Your task to perform on an android device: Open Google Maps and go to "Timeline" Image 0: 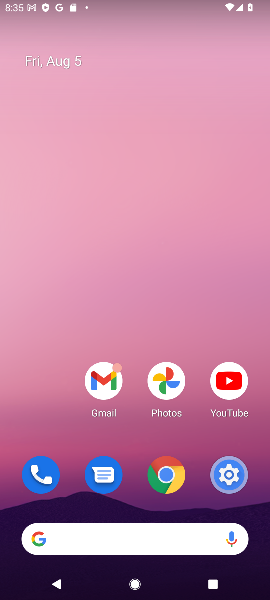
Step 0: drag from (95, 579) to (171, 173)
Your task to perform on an android device: Open Google Maps and go to "Timeline" Image 1: 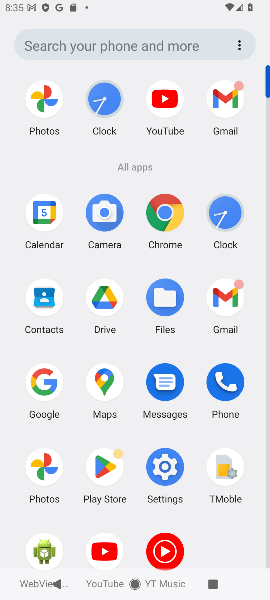
Step 1: click (50, 385)
Your task to perform on an android device: Open Google Maps and go to "Timeline" Image 2: 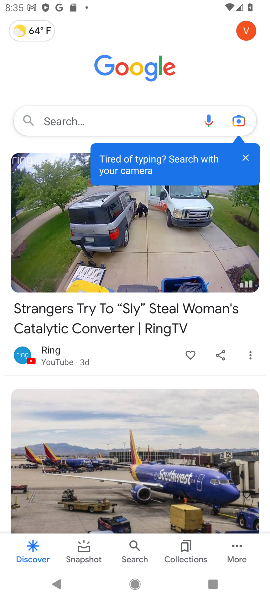
Step 2: press home button
Your task to perform on an android device: Open Google Maps and go to "Timeline" Image 3: 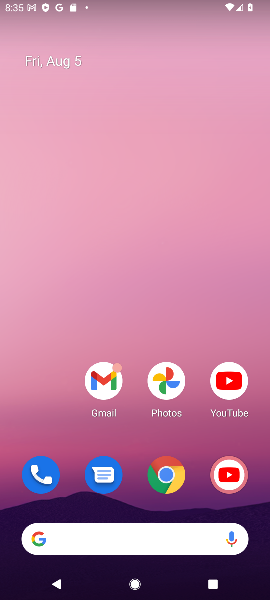
Step 3: drag from (157, 574) to (233, 234)
Your task to perform on an android device: Open Google Maps and go to "Timeline" Image 4: 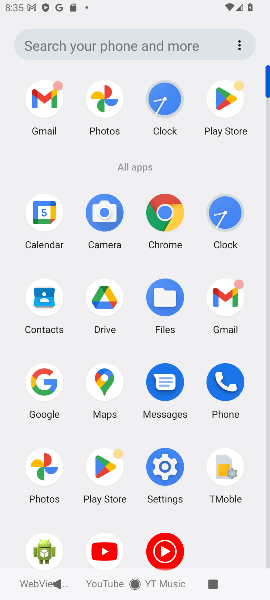
Step 4: click (109, 382)
Your task to perform on an android device: Open Google Maps and go to "Timeline" Image 5: 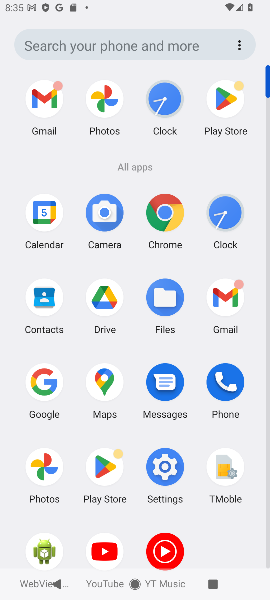
Step 5: click (109, 382)
Your task to perform on an android device: Open Google Maps and go to "Timeline" Image 6: 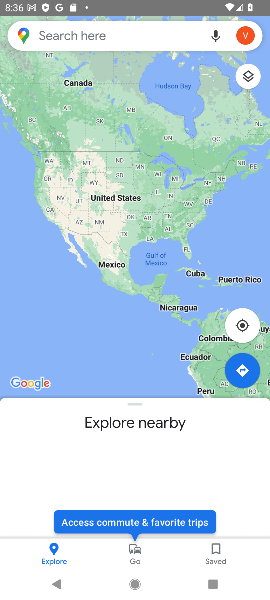
Step 6: click (23, 30)
Your task to perform on an android device: Open Google Maps and go to "Timeline" Image 7: 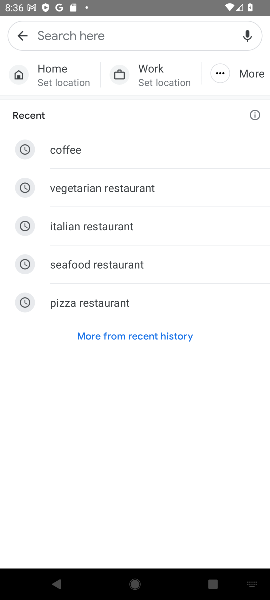
Step 7: click (18, 31)
Your task to perform on an android device: Open Google Maps and go to "Timeline" Image 8: 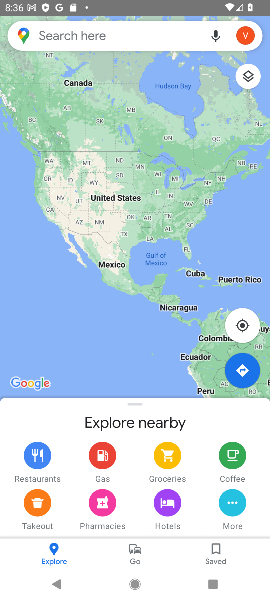
Step 8: click (19, 34)
Your task to perform on an android device: Open Google Maps and go to "Timeline" Image 9: 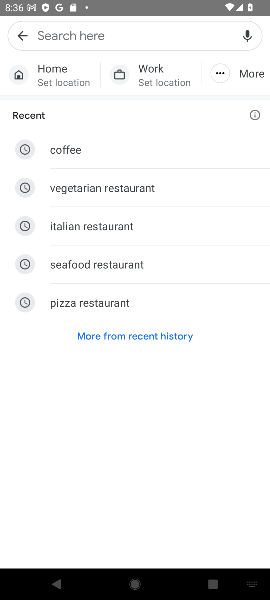
Step 9: task complete